Your task to perform on an android device: Open settings on Google Maps Image 0: 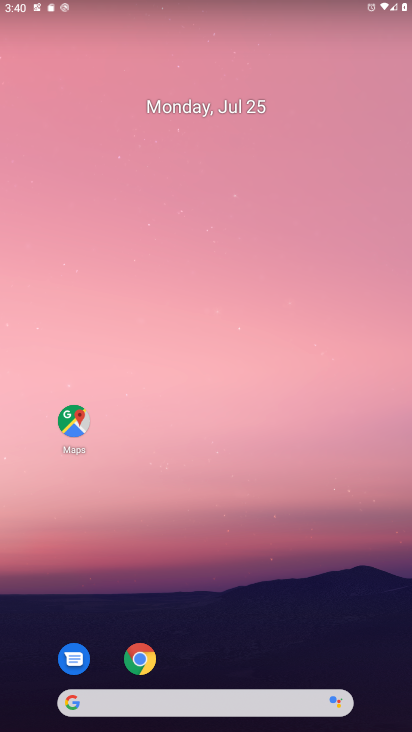
Step 0: click (65, 425)
Your task to perform on an android device: Open settings on Google Maps Image 1: 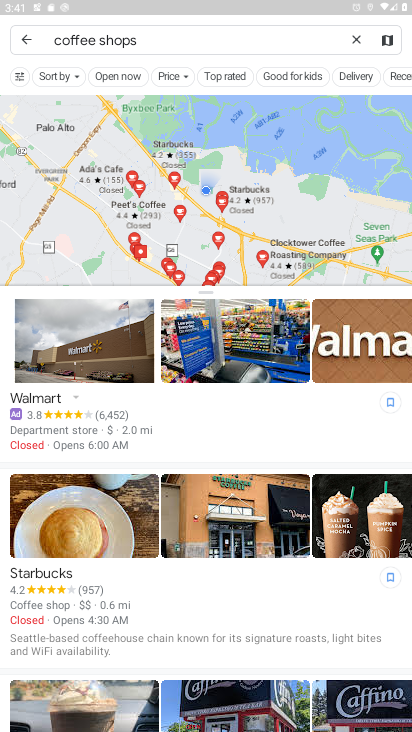
Step 1: click (20, 42)
Your task to perform on an android device: Open settings on Google Maps Image 2: 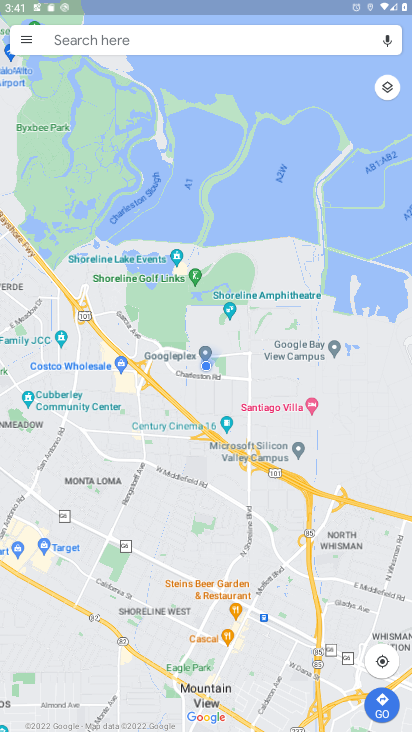
Step 2: click (20, 42)
Your task to perform on an android device: Open settings on Google Maps Image 3: 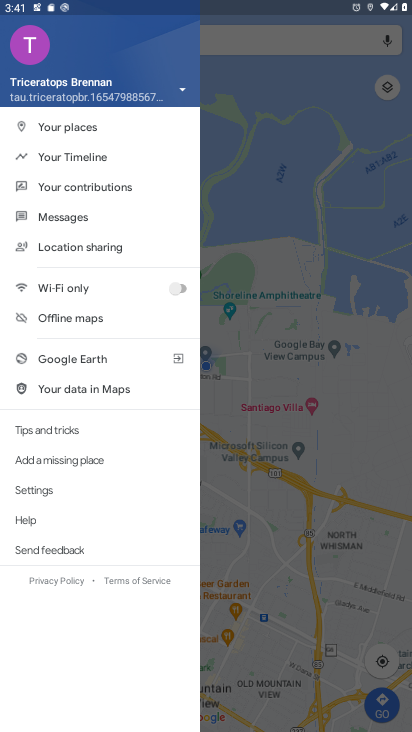
Step 3: click (44, 487)
Your task to perform on an android device: Open settings on Google Maps Image 4: 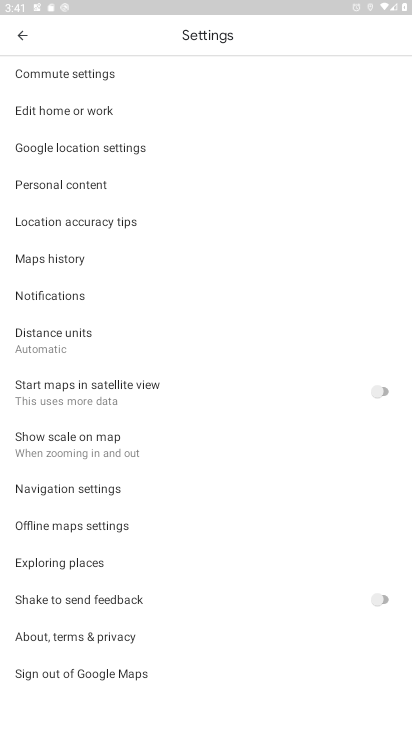
Step 4: task complete